Your task to perform on an android device: delete a single message in the gmail app Image 0: 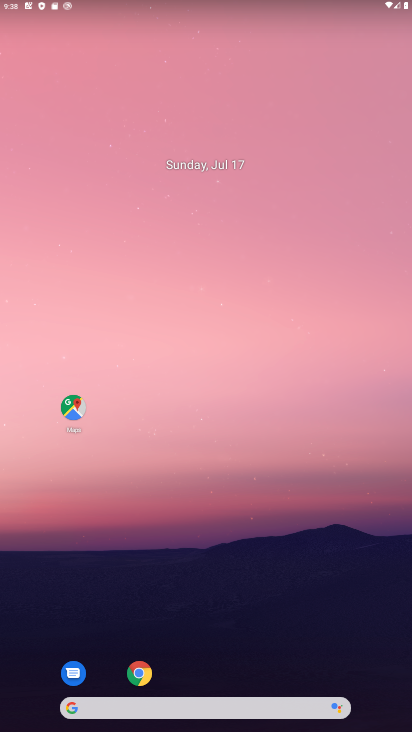
Step 0: drag from (202, 674) to (188, 161)
Your task to perform on an android device: delete a single message in the gmail app Image 1: 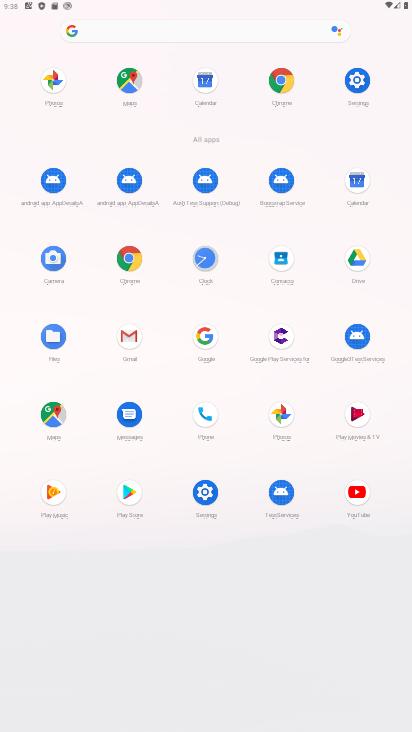
Step 1: click (130, 337)
Your task to perform on an android device: delete a single message in the gmail app Image 2: 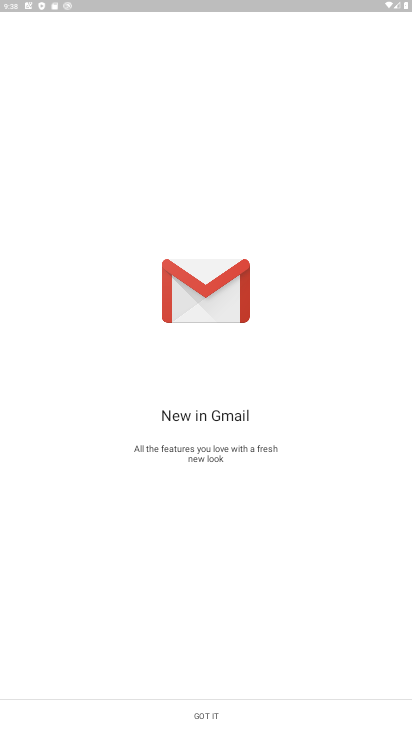
Step 2: click (215, 715)
Your task to perform on an android device: delete a single message in the gmail app Image 3: 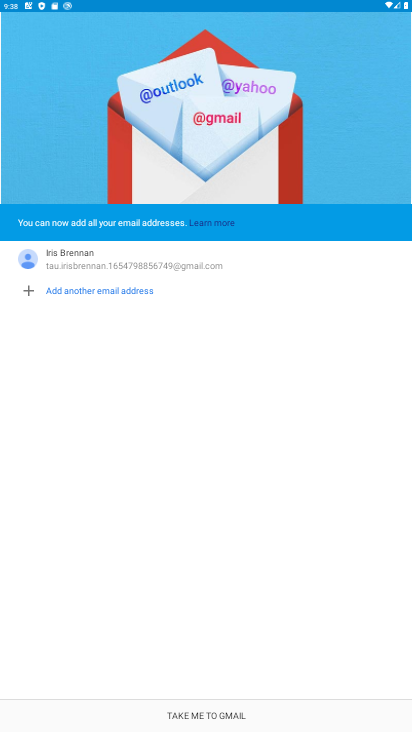
Step 3: click (192, 716)
Your task to perform on an android device: delete a single message in the gmail app Image 4: 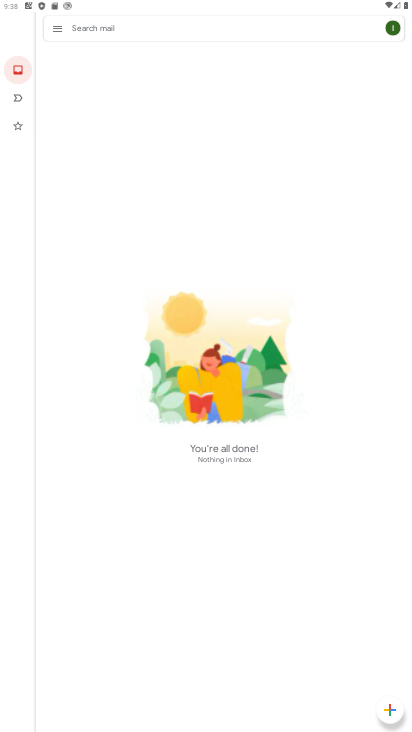
Step 4: click (58, 22)
Your task to perform on an android device: delete a single message in the gmail app Image 5: 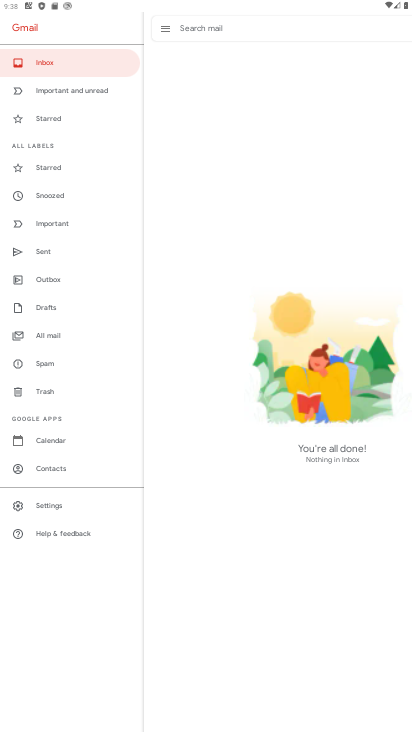
Step 5: click (45, 336)
Your task to perform on an android device: delete a single message in the gmail app Image 6: 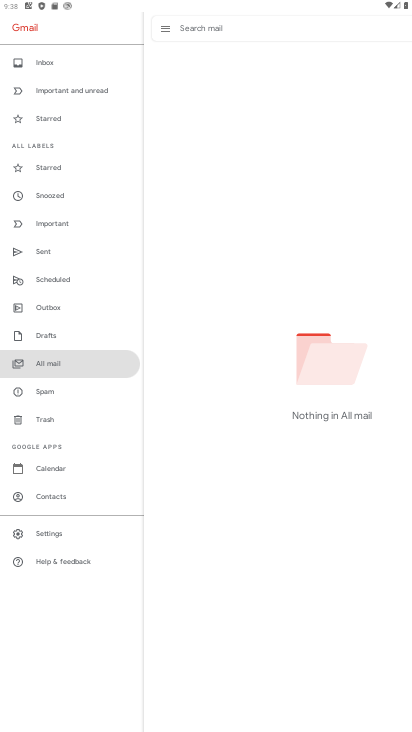
Step 6: task complete